Your task to perform on an android device: Open CNN.com Image 0: 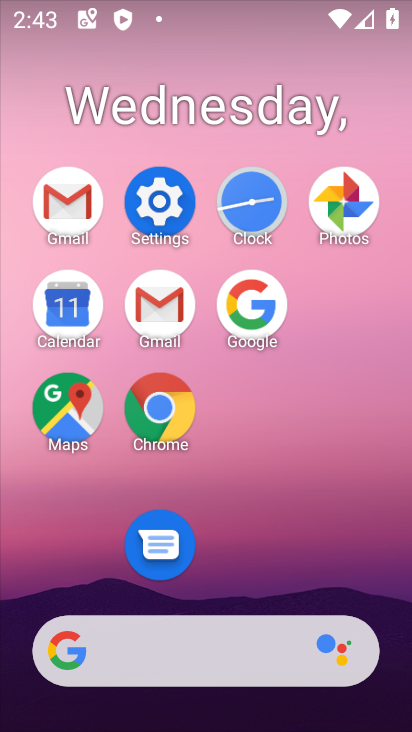
Step 0: click (172, 416)
Your task to perform on an android device: Open CNN.com Image 1: 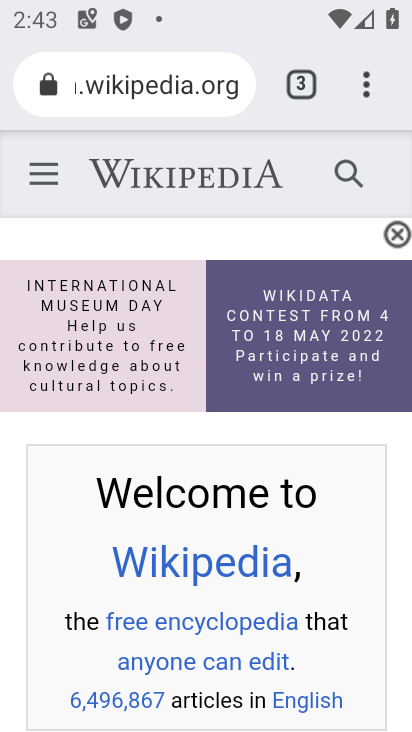
Step 1: click (314, 93)
Your task to perform on an android device: Open CNN.com Image 2: 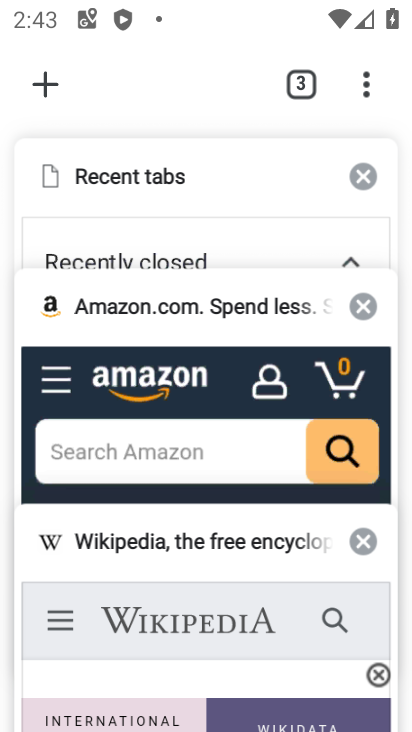
Step 2: click (62, 82)
Your task to perform on an android device: Open CNN.com Image 3: 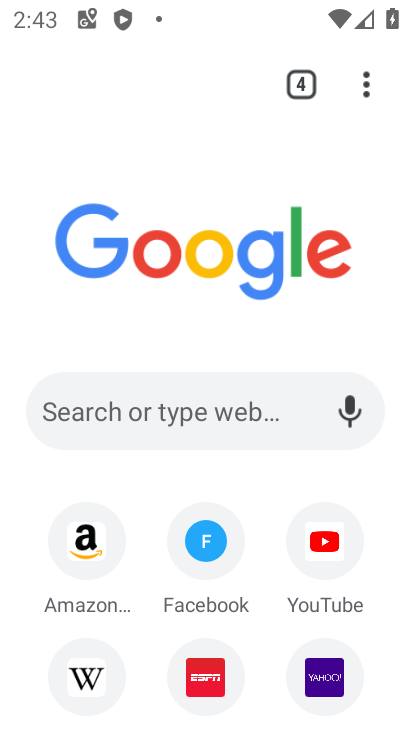
Step 3: click (176, 389)
Your task to perform on an android device: Open CNN.com Image 4: 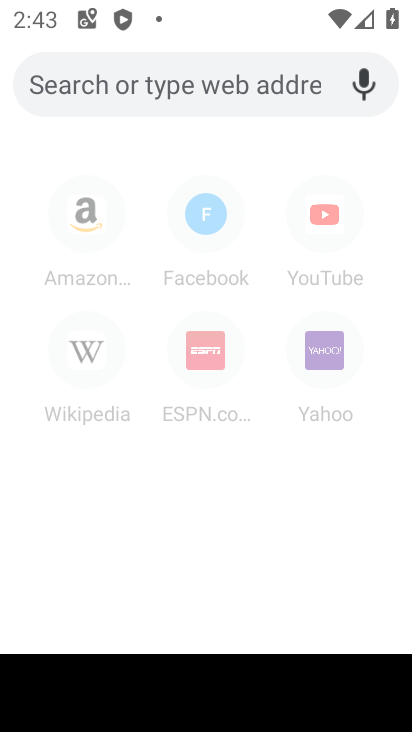
Step 4: type "cnn"
Your task to perform on an android device: Open CNN.com Image 5: 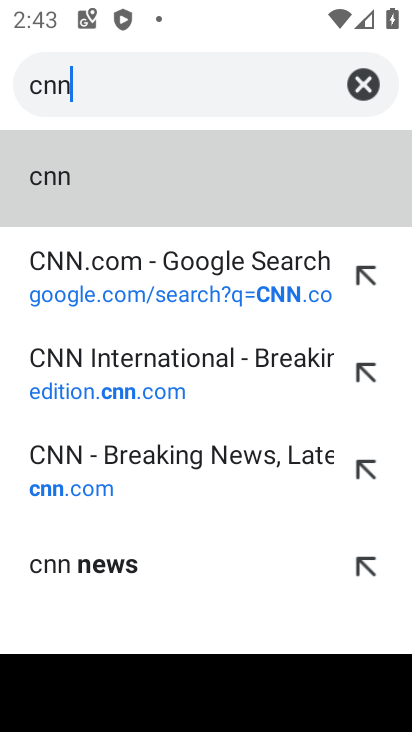
Step 5: click (131, 264)
Your task to perform on an android device: Open CNN.com Image 6: 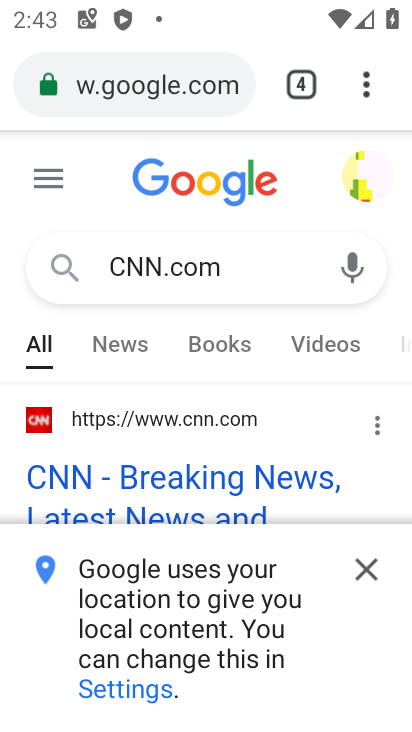
Step 6: click (158, 457)
Your task to perform on an android device: Open CNN.com Image 7: 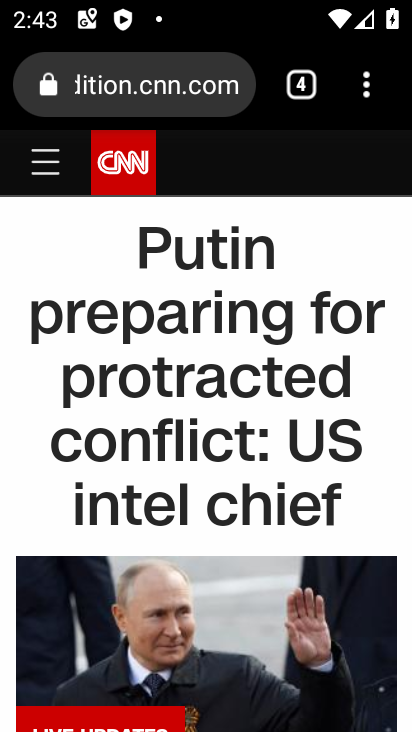
Step 7: task complete